Your task to perform on an android device: Do I have any events tomorrow? Image 0: 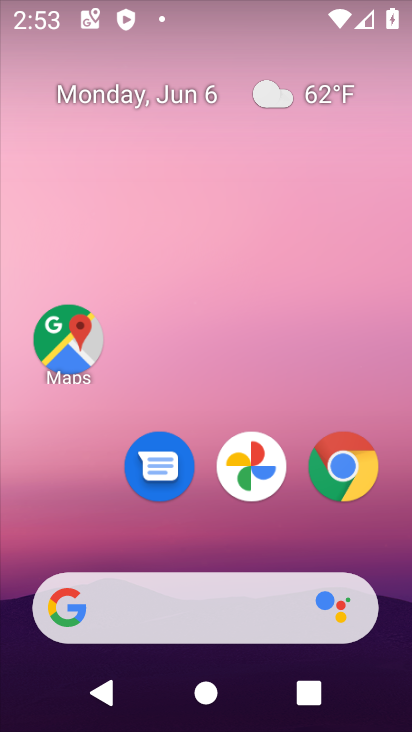
Step 0: drag from (263, 667) to (223, 351)
Your task to perform on an android device: Do I have any events tomorrow? Image 1: 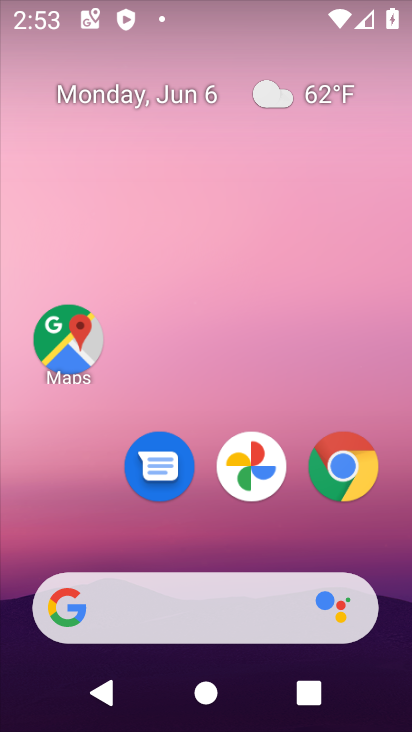
Step 1: drag from (262, 686) to (240, 465)
Your task to perform on an android device: Do I have any events tomorrow? Image 2: 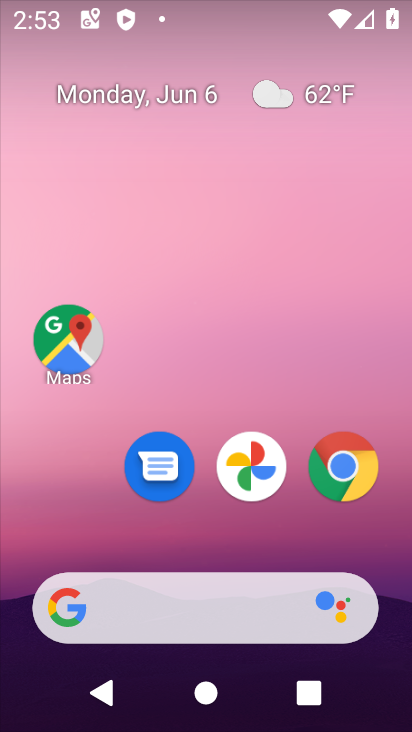
Step 2: drag from (251, 647) to (198, 283)
Your task to perform on an android device: Do I have any events tomorrow? Image 3: 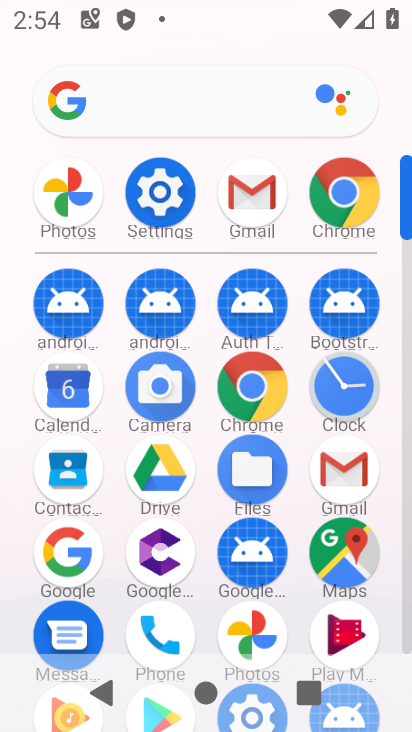
Step 3: click (84, 404)
Your task to perform on an android device: Do I have any events tomorrow? Image 4: 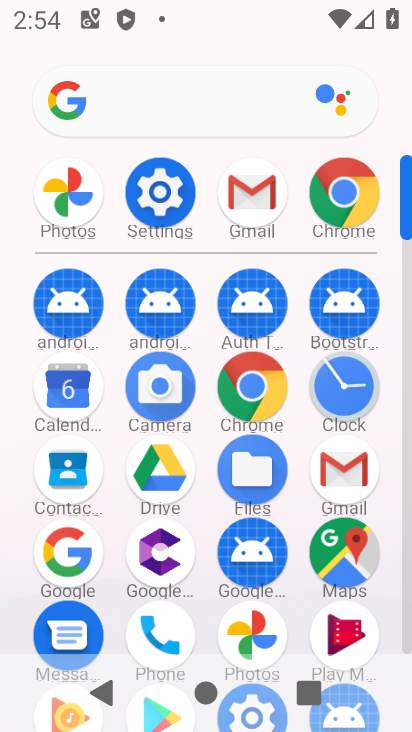
Step 4: click (84, 404)
Your task to perform on an android device: Do I have any events tomorrow? Image 5: 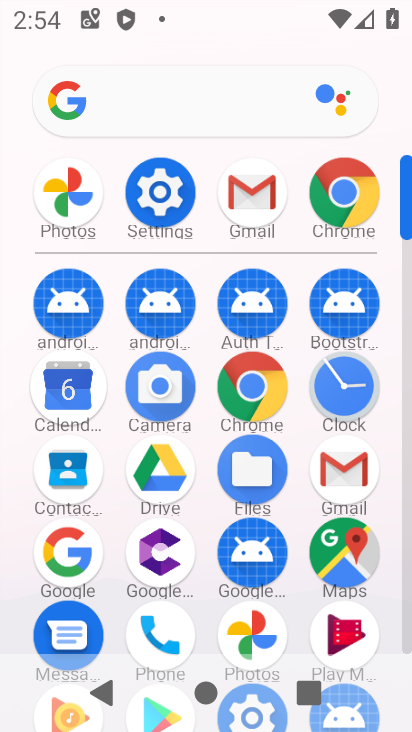
Step 5: click (79, 401)
Your task to perform on an android device: Do I have any events tomorrow? Image 6: 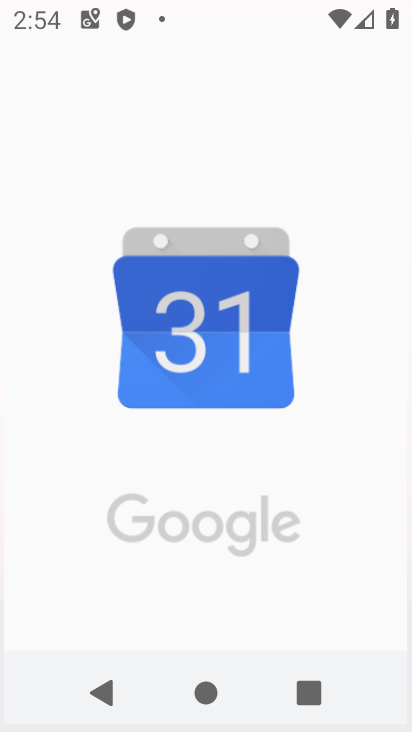
Step 6: click (78, 400)
Your task to perform on an android device: Do I have any events tomorrow? Image 7: 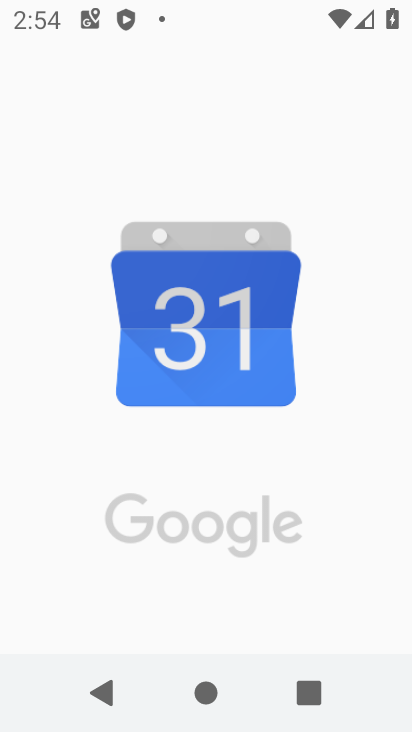
Step 7: click (78, 392)
Your task to perform on an android device: Do I have any events tomorrow? Image 8: 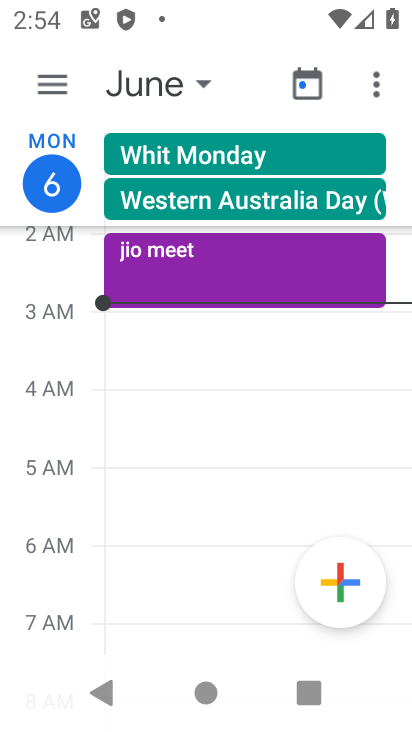
Step 8: click (203, 85)
Your task to perform on an android device: Do I have any events tomorrow? Image 9: 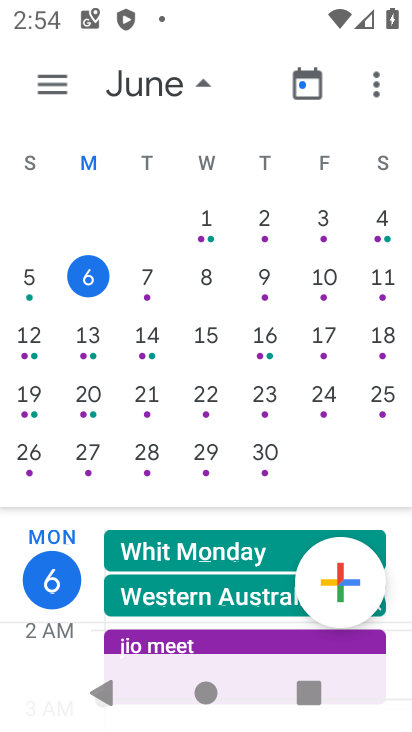
Step 9: click (144, 278)
Your task to perform on an android device: Do I have any events tomorrow? Image 10: 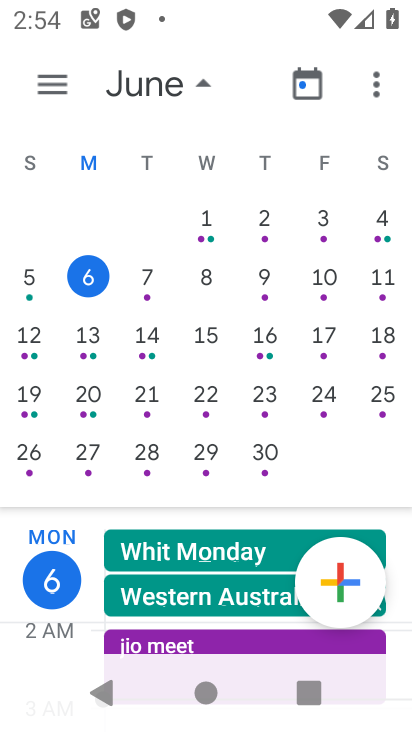
Step 10: click (143, 277)
Your task to perform on an android device: Do I have any events tomorrow? Image 11: 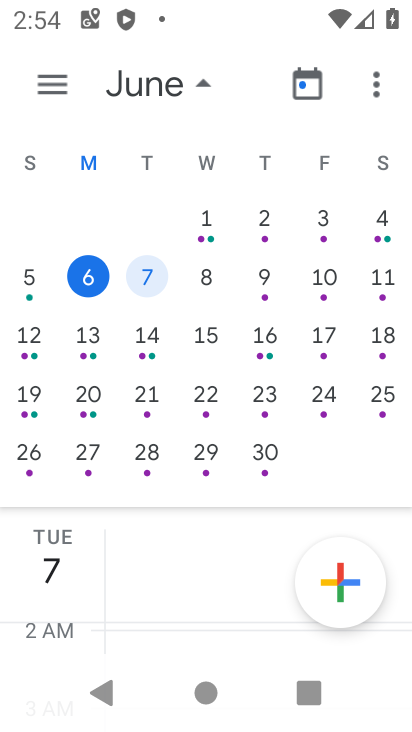
Step 11: click (143, 277)
Your task to perform on an android device: Do I have any events tomorrow? Image 12: 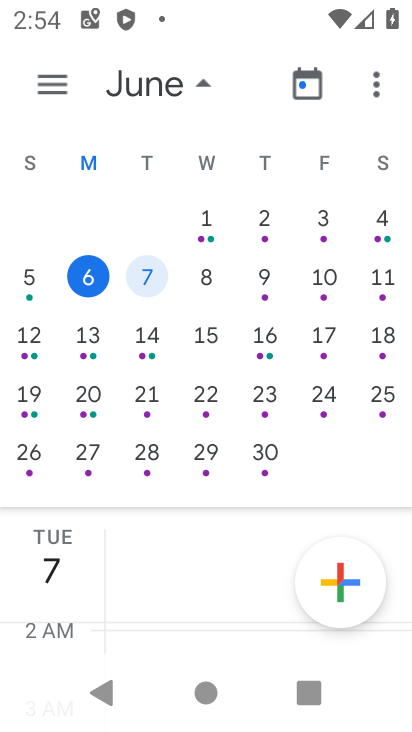
Step 12: click (144, 278)
Your task to perform on an android device: Do I have any events tomorrow? Image 13: 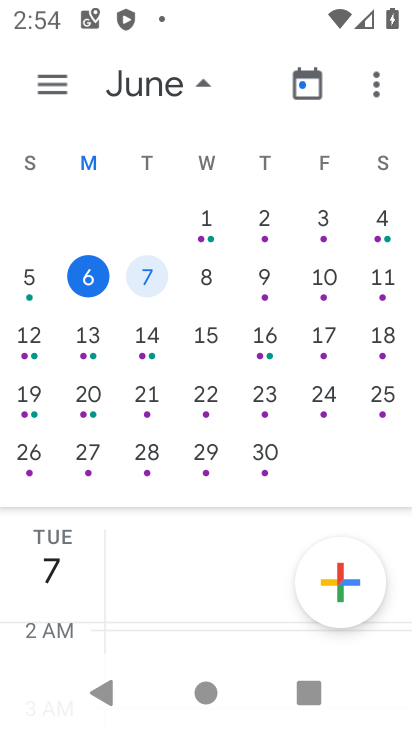
Step 13: drag from (182, 533) to (137, 233)
Your task to perform on an android device: Do I have any events tomorrow? Image 14: 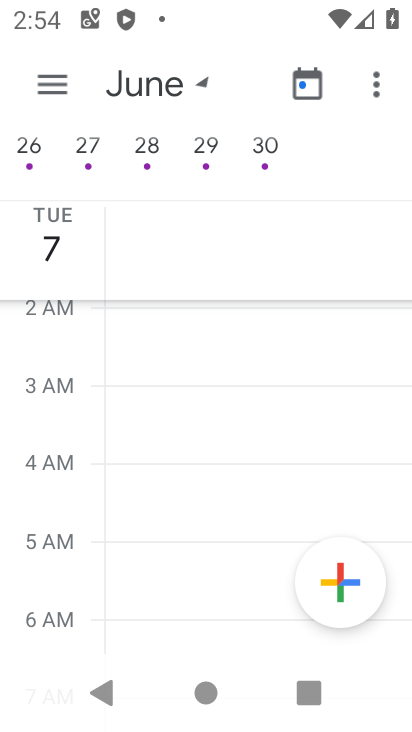
Step 14: drag from (227, 494) to (201, 239)
Your task to perform on an android device: Do I have any events tomorrow? Image 15: 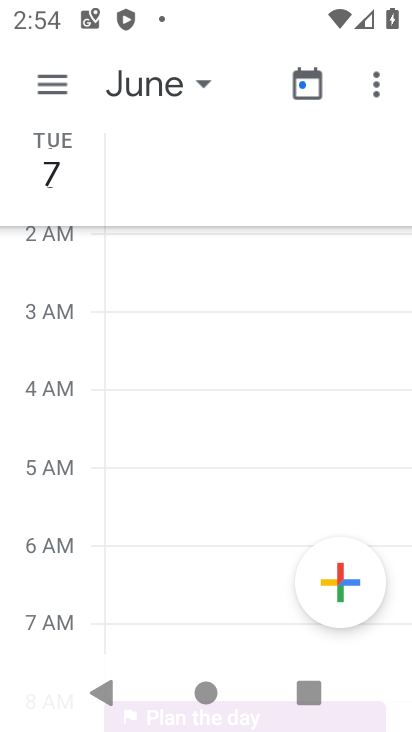
Step 15: drag from (165, 302) to (228, 571)
Your task to perform on an android device: Do I have any events tomorrow? Image 16: 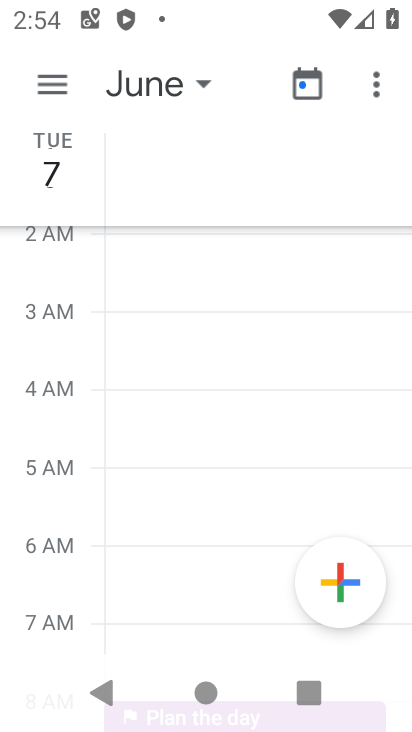
Step 16: click (45, 88)
Your task to perform on an android device: Do I have any events tomorrow? Image 17: 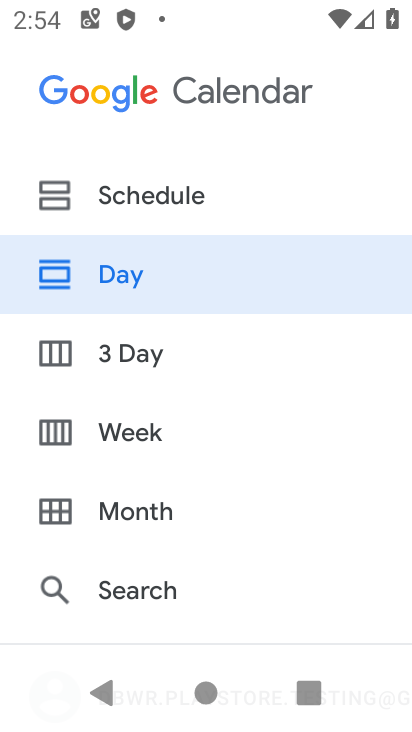
Step 17: click (172, 207)
Your task to perform on an android device: Do I have any events tomorrow? Image 18: 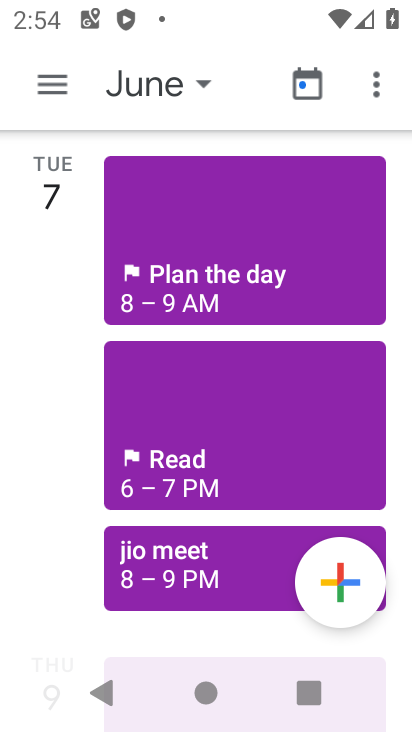
Step 18: click (211, 433)
Your task to perform on an android device: Do I have any events tomorrow? Image 19: 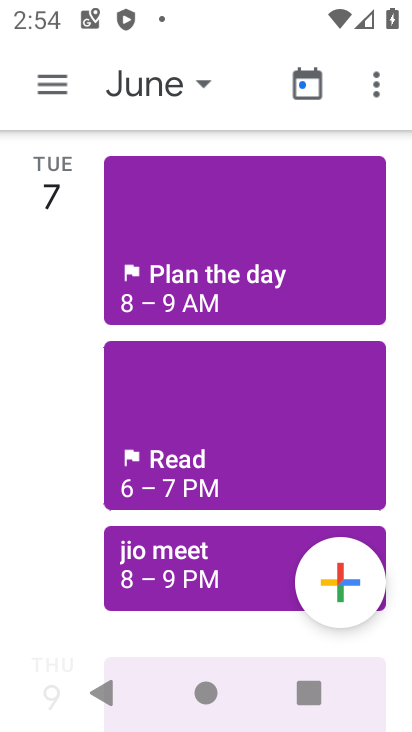
Step 19: click (205, 428)
Your task to perform on an android device: Do I have any events tomorrow? Image 20: 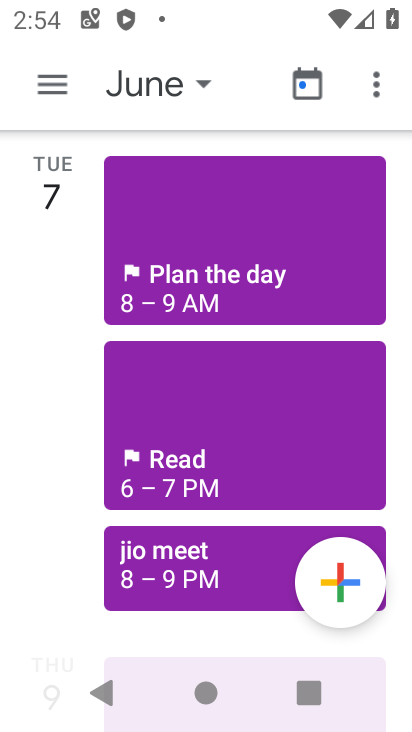
Step 20: click (205, 428)
Your task to perform on an android device: Do I have any events tomorrow? Image 21: 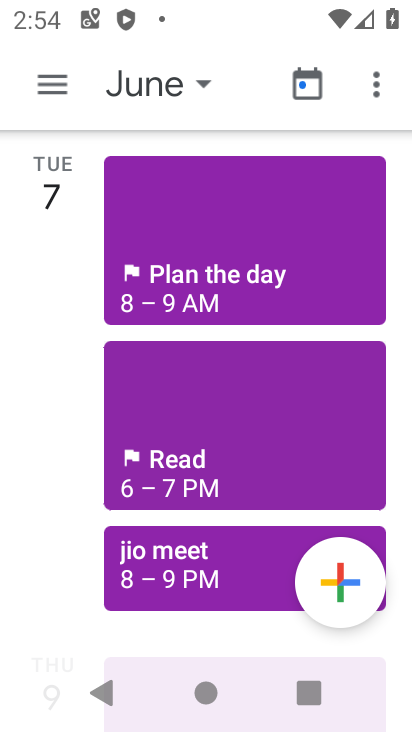
Step 21: click (205, 428)
Your task to perform on an android device: Do I have any events tomorrow? Image 22: 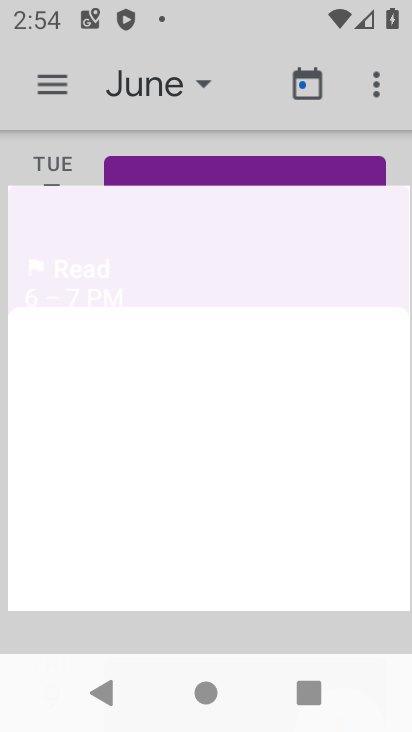
Step 22: click (205, 422)
Your task to perform on an android device: Do I have any events tomorrow? Image 23: 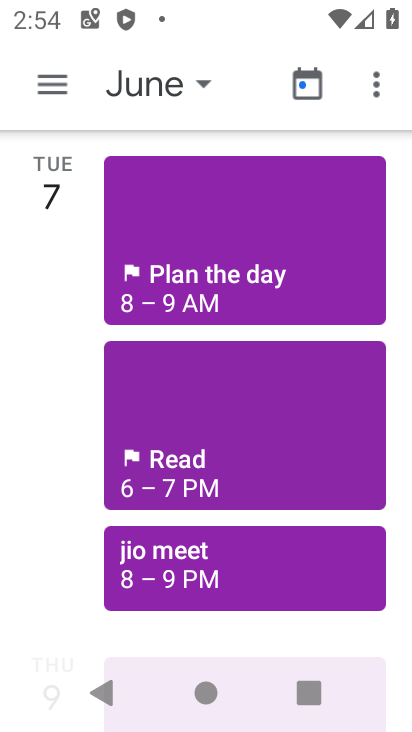
Step 23: click (206, 421)
Your task to perform on an android device: Do I have any events tomorrow? Image 24: 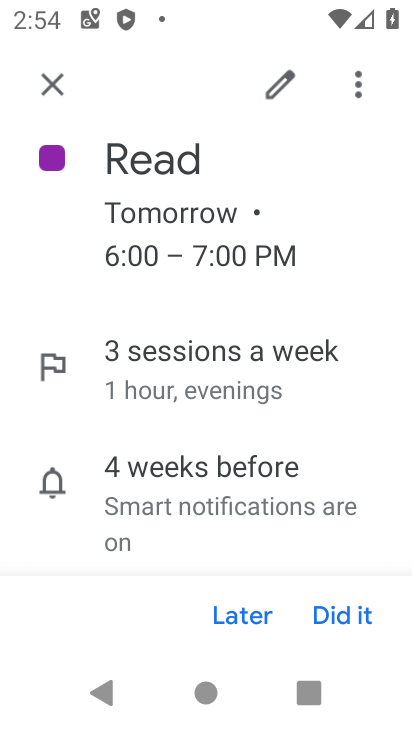
Step 24: task complete